Your task to perform on an android device: Open battery settings Image 0: 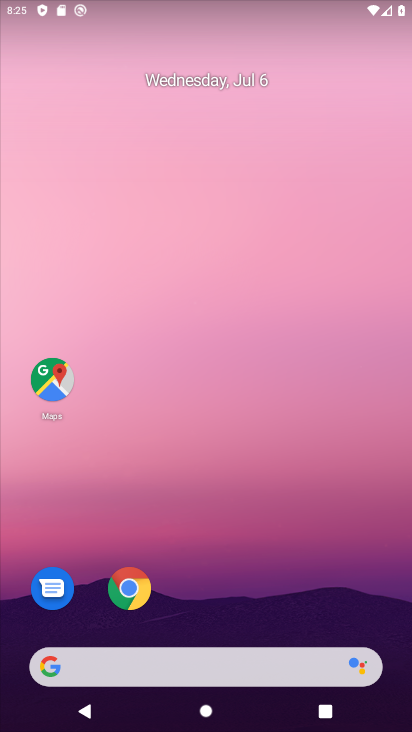
Step 0: drag from (266, 576) to (234, 81)
Your task to perform on an android device: Open battery settings Image 1: 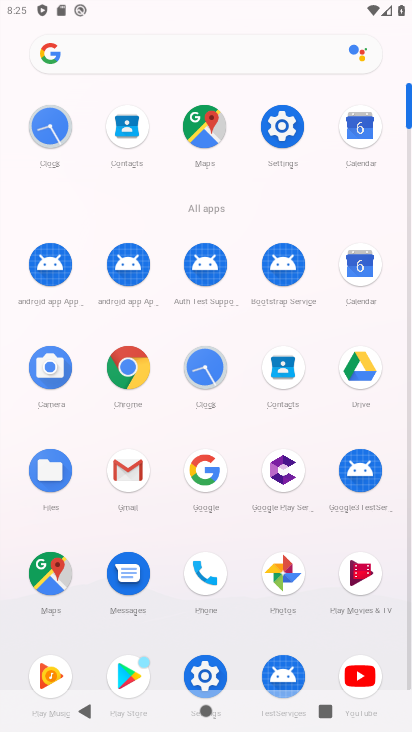
Step 1: click (283, 121)
Your task to perform on an android device: Open battery settings Image 2: 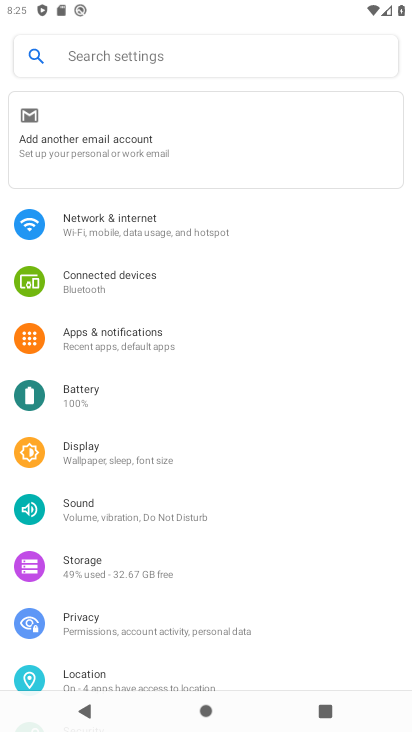
Step 2: click (82, 389)
Your task to perform on an android device: Open battery settings Image 3: 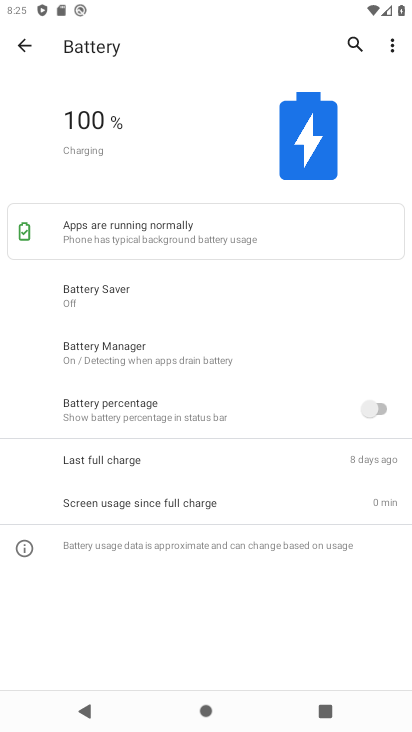
Step 3: task complete